Your task to perform on an android device: Go to ESPN.com Image 0: 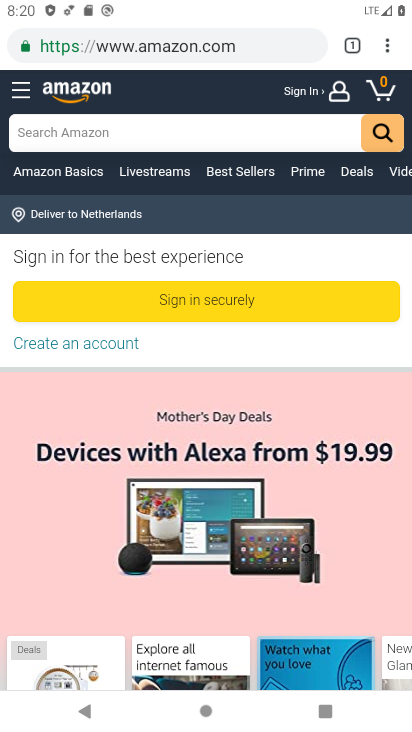
Step 0: press home button
Your task to perform on an android device: Go to ESPN.com Image 1: 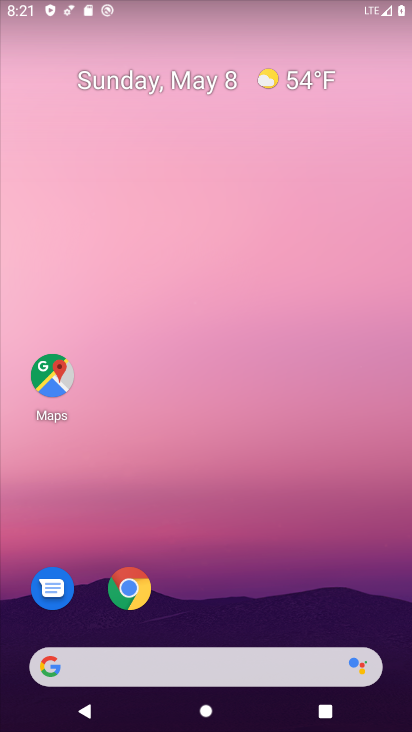
Step 1: click (151, 595)
Your task to perform on an android device: Go to ESPN.com Image 2: 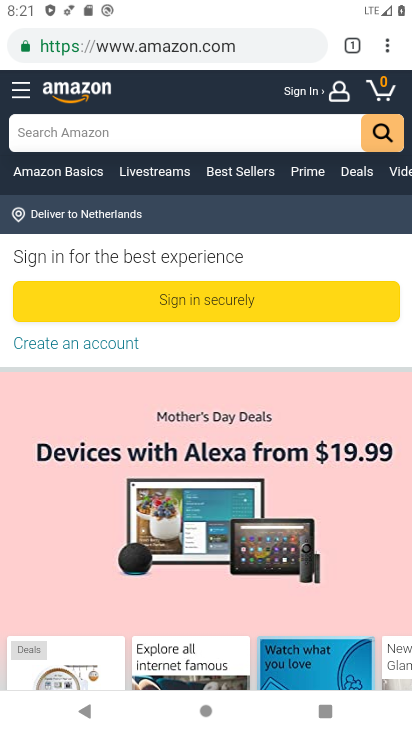
Step 2: press back button
Your task to perform on an android device: Go to ESPN.com Image 3: 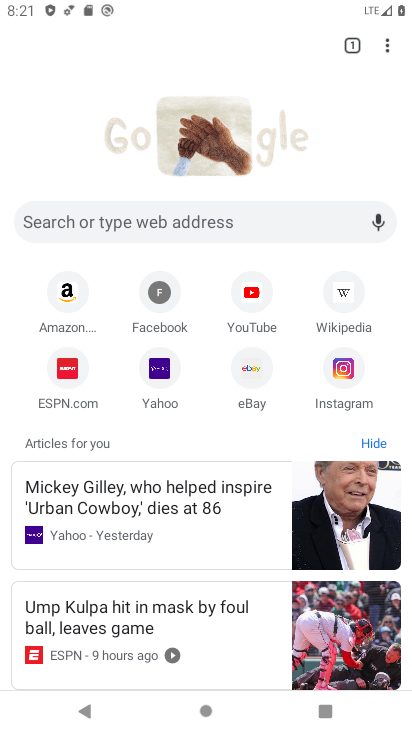
Step 3: click (76, 385)
Your task to perform on an android device: Go to ESPN.com Image 4: 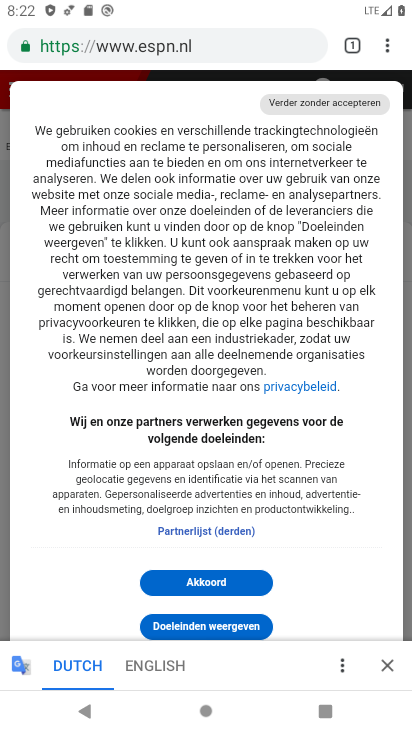
Step 4: click (179, 581)
Your task to perform on an android device: Go to ESPN.com Image 5: 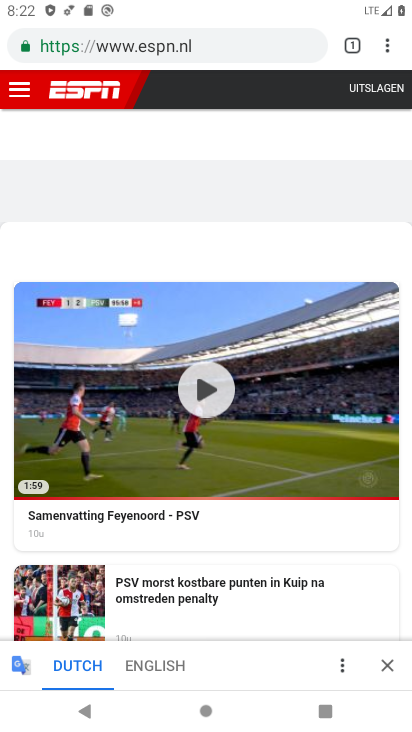
Step 5: task complete